Your task to perform on an android device: Play the last video I watched on Youtube Image 0: 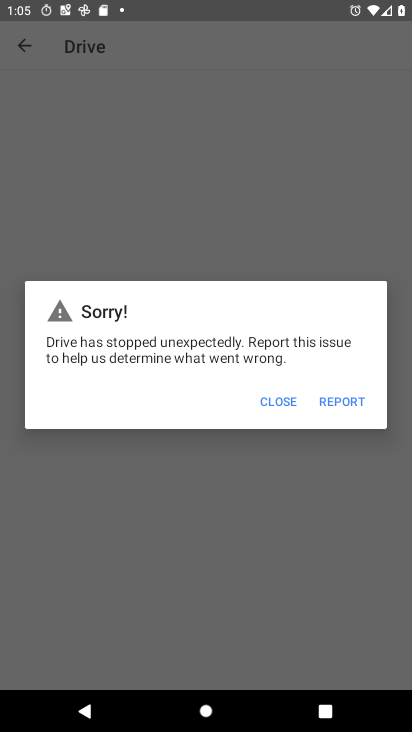
Step 0: press home button
Your task to perform on an android device: Play the last video I watched on Youtube Image 1: 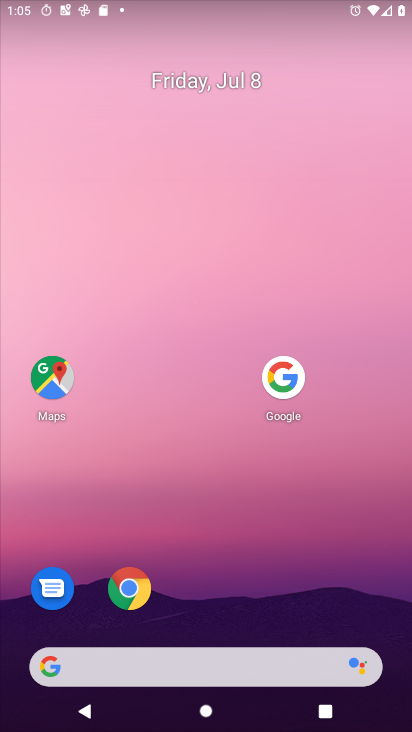
Step 1: drag from (169, 668) to (328, 62)
Your task to perform on an android device: Play the last video I watched on Youtube Image 2: 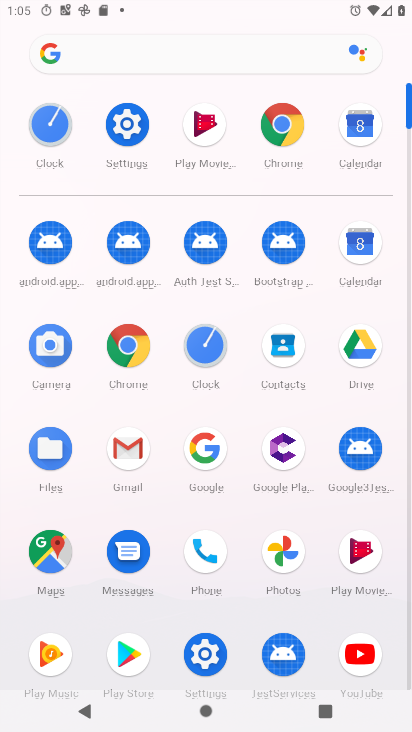
Step 2: click (361, 658)
Your task to perform on an android device: Play the last video I watched on Youtube Image 3: 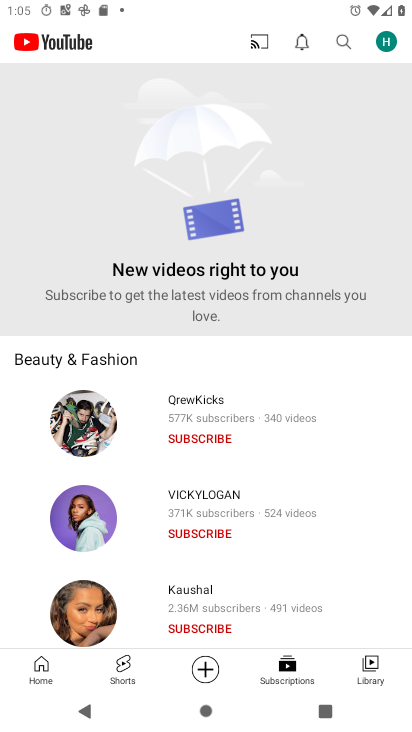
Step 3: click (373, 677)
Your task to perform on an android device: Play the last video I watched on Youtube Image 4: 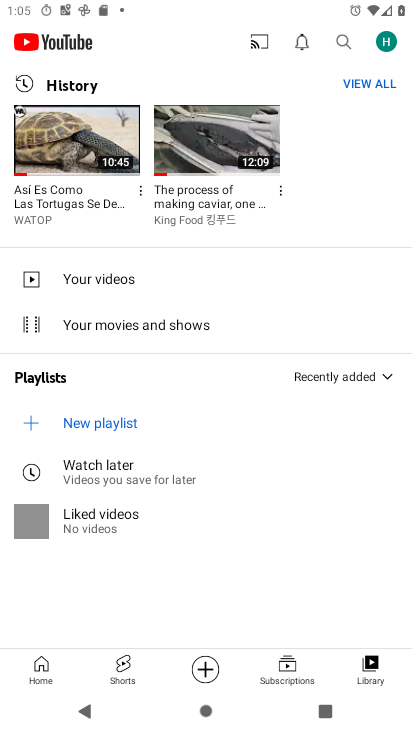
Step 4: click (97, 140)
Your task to perform on an android device: Play the last video I watched on Youtube Image 5: 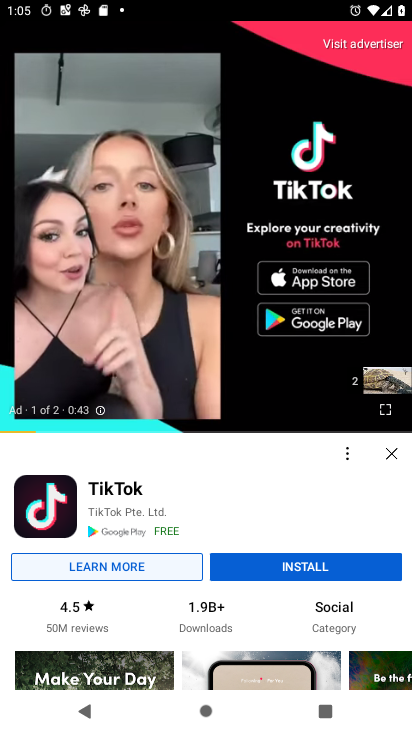
Step 5: click (234, 212)
Your task to perform on an android device: Play the last video I watched on Youtube Image 6: 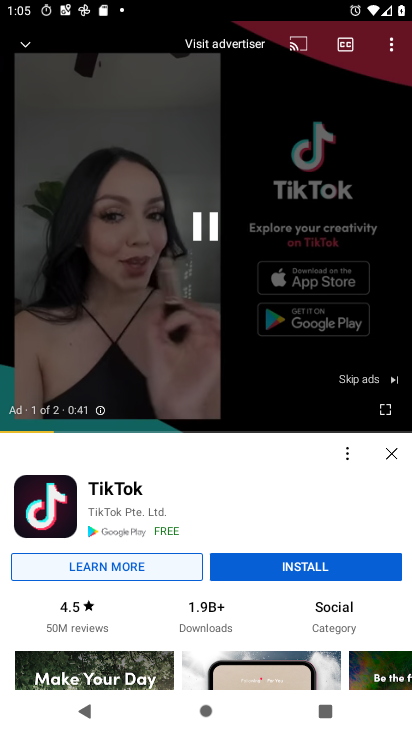
Step 6: click (220, 223)
Your task to perform on an android device: Play the last video I watched on Youtube Image 7: 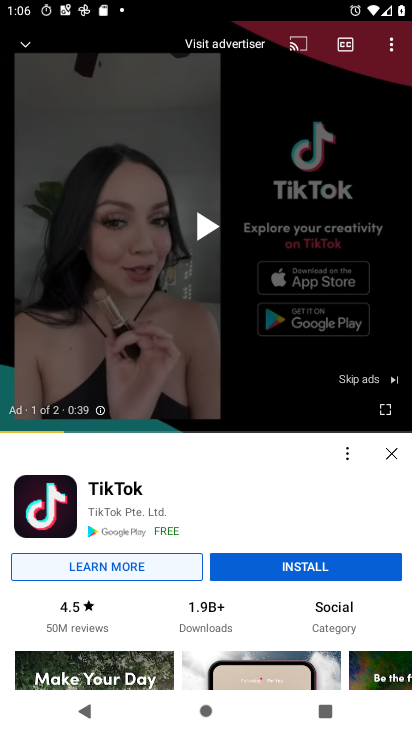
Step 7: task complete